Your task to perform on an android device: Turn on the flashlight Image 0: 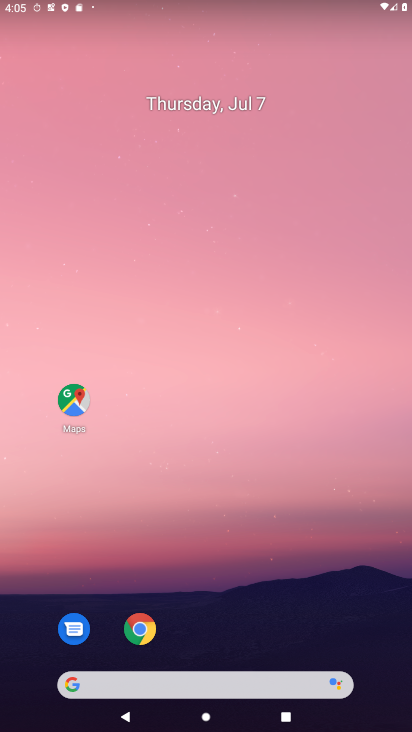
Step 0: drag from (193, 604) to (329, 17)
Your task to perform on an android device: Turn on the flashlight Image 1: 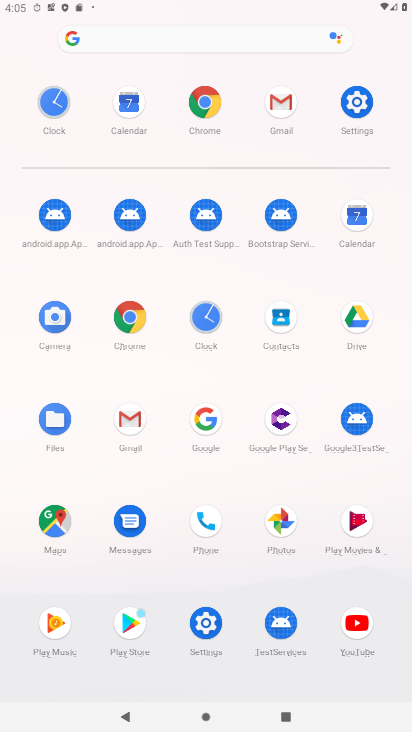
Step 1: click (354, 109)
Your task to perform on an android device: Turn on the flashlight Image 2: 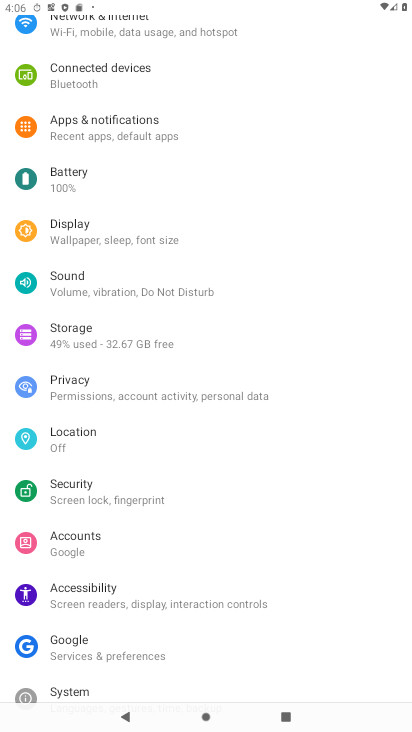
Step 2: task complete